Your task to perform on an android device: open wifi settings Image 0: 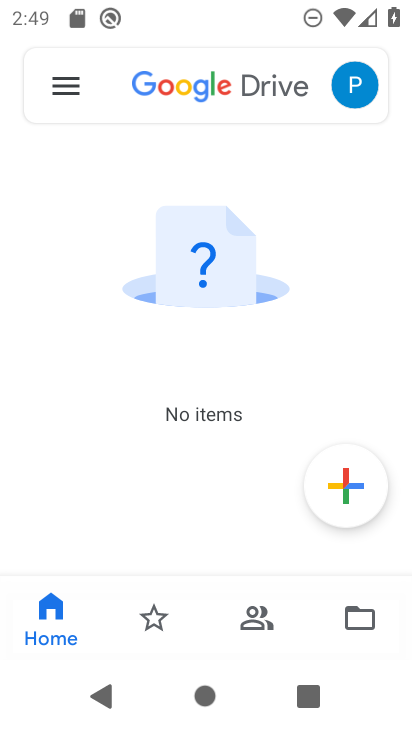
Step 0: press back button
Your task to perform on an android device: open wifi settings Image 1: 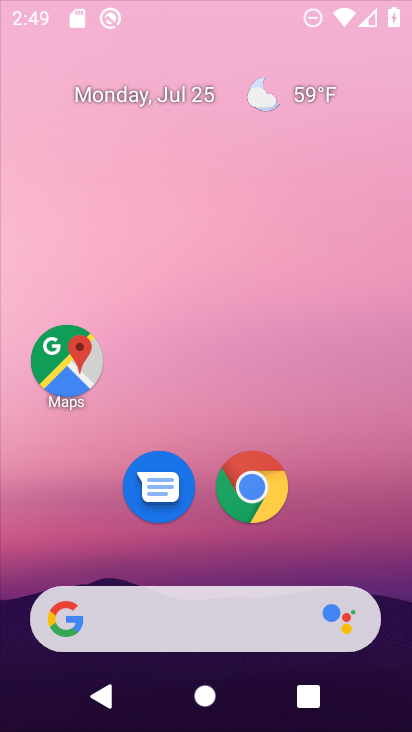
Step 1: task complete